Your task to perform on an android device: open the mobile data screen to see how much data has been used Image 0: 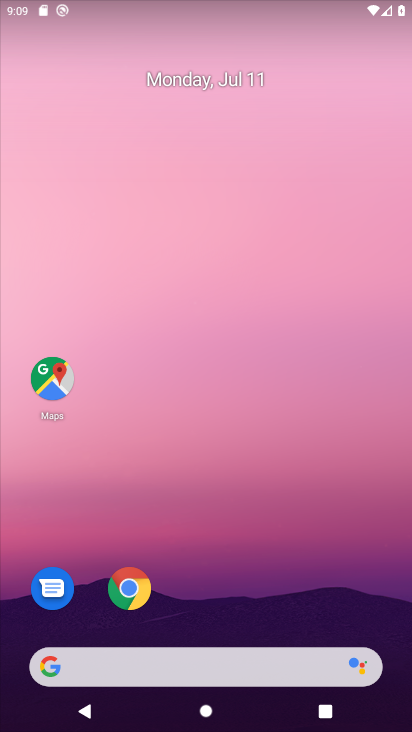
Step 0: drag from (248, 650) to (175, 148)
Your task to perform on an android device: open the mobile data screen to see how much data has been used Image 1: 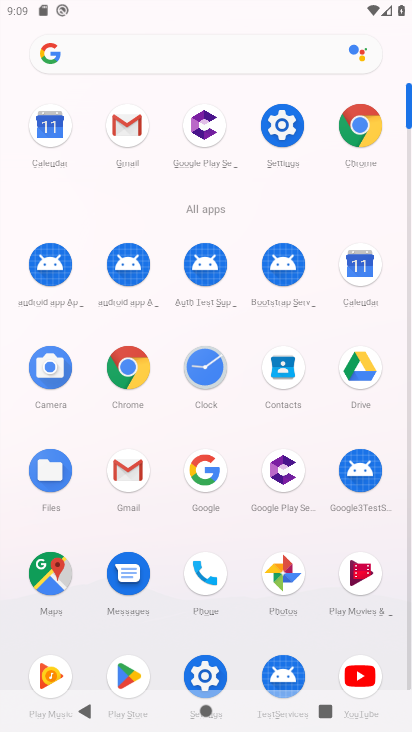
Step 1: click (270, 124)
Your task to perform on an android device: open the mobile data screen to see how much data has been used Image 2: 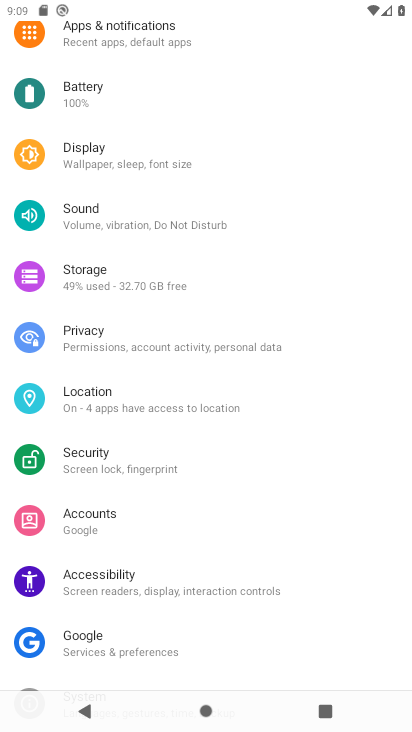
Step 2: drag from (154, 46) to (181, 563)
Your task to perform on an android device: open the mobile data screen to see how much data has been used Image 3: 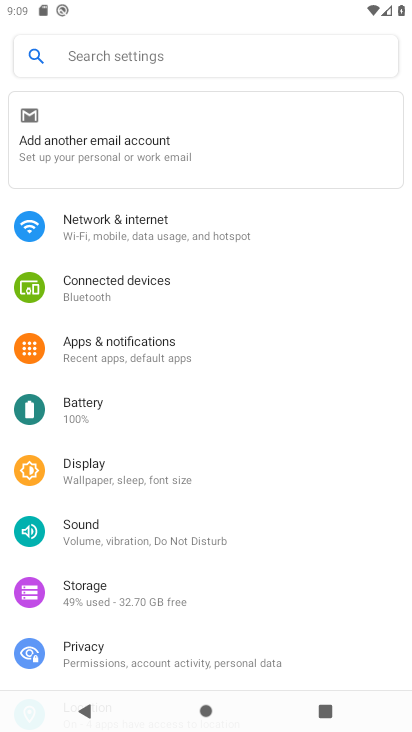
Step 3: click (180, 231)
Your task to perform on an android device: open the mobile data screen to see how much data has been used Image 4: 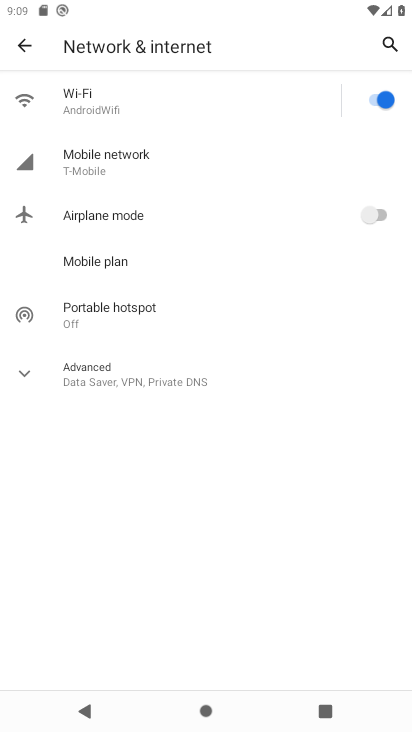
Step 4: click (132, 176)
Your task to perform on an android device: open the mobile data screen to see how much data has been used Image 5: 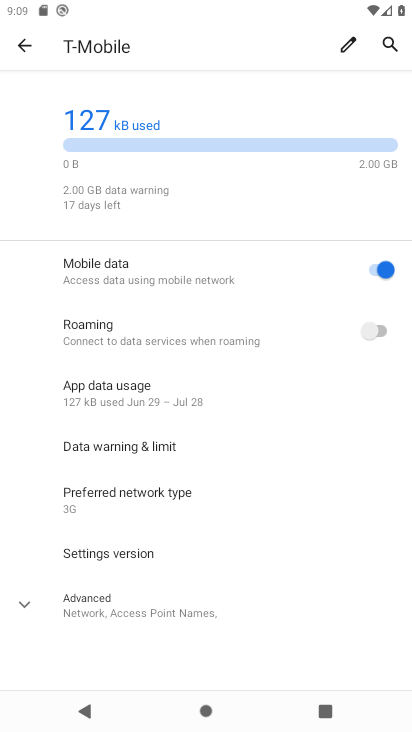
Step 5: click (162, 277)
Your task to perform on an android device: open the mobile data screen to see how much data has been used Image 6: 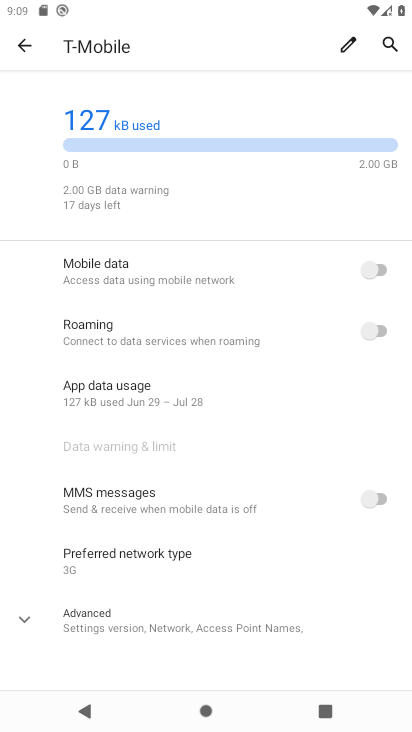
Step 6: task complete